Your task to perform on an android device: Search for asus zenbook on newegg, select the first entry, add it to the cart, then select checkout. Image 0: 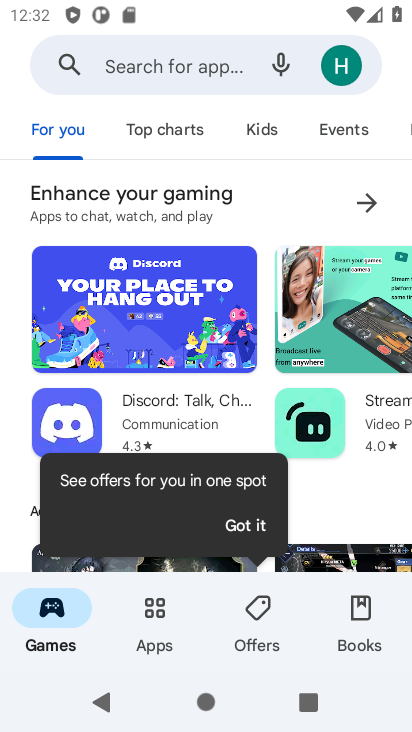
Step 0: press home button
Your task to perform on an android device: Search for asus zenbook on newegg, select the first entry, add it to the cart, then select checkout. Image 1: 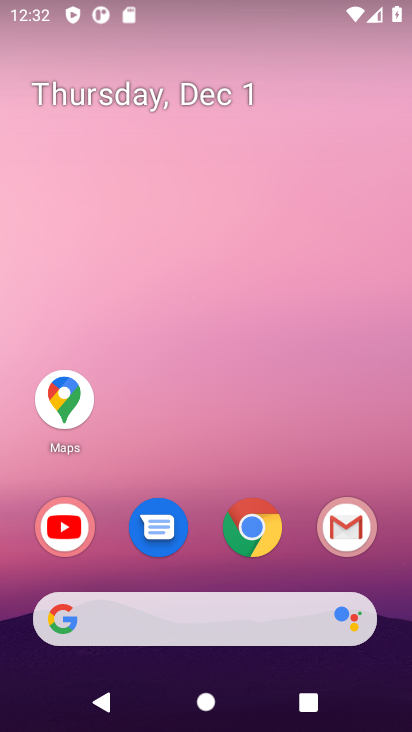
Step 1: click (252, 531)
Your task to perform on an android device: Search for asus zenbook on newegg, select the first entry, add it to the cart, then select checkout. Image 2: 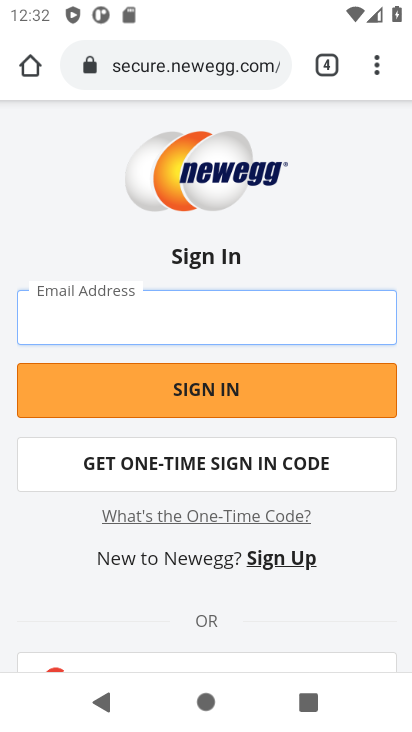
Step 2: press back button
Your task to perform on an android device: Search for asus zenbook on newegg, select the first entry, add it to the cart, then select checkout. Image 3: 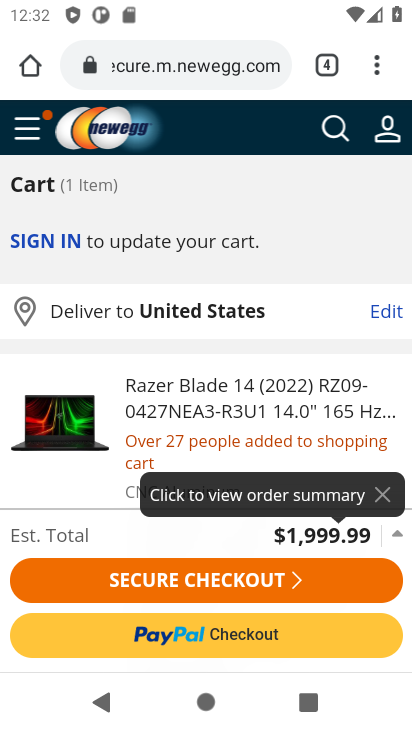
Step 3: click (328, 131)
Your task to perform on an android device: Search for asus zenbook on newegg, select the first entry, add it to the cart, then select checkout. Image 4: 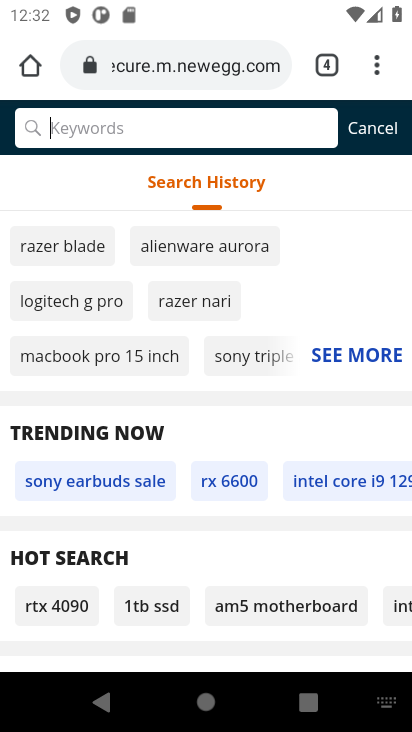
Step 4: type "asus zenbook"
Your task to perform on an android device: Search for asus zenbook on newegg, select the first entry, add it to the cart, then select checkout. Image 5: 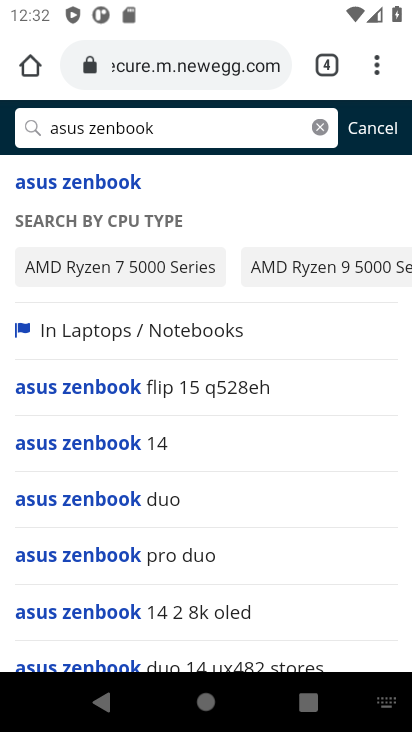
Step 5: click (75, 192)
Your task to perform on an android device: Search for asus zenbook on newegg, select the first entry, add it to the cart, then select checkout. Image 6: 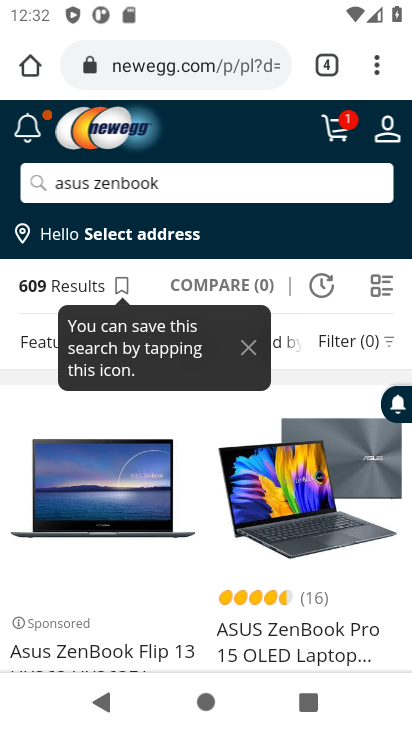
Step 6: drag from (176, 450) to (186, 242)
Your task to perform on an android device: Search for asus zenbook on newegg, select the first entry, add it to the cart, then select checkout. Image 7: 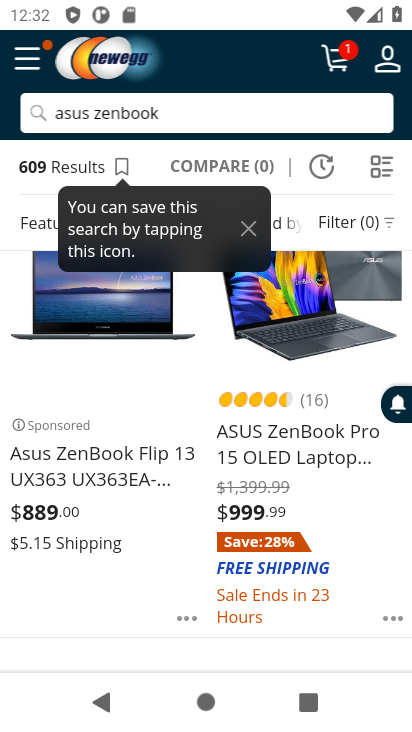
Step 7: click (80, 466)
Your task to perform on an android device: Search for asus zenbook on newegg, select the first entry, add it to the cart, then select checkout. Image 8: 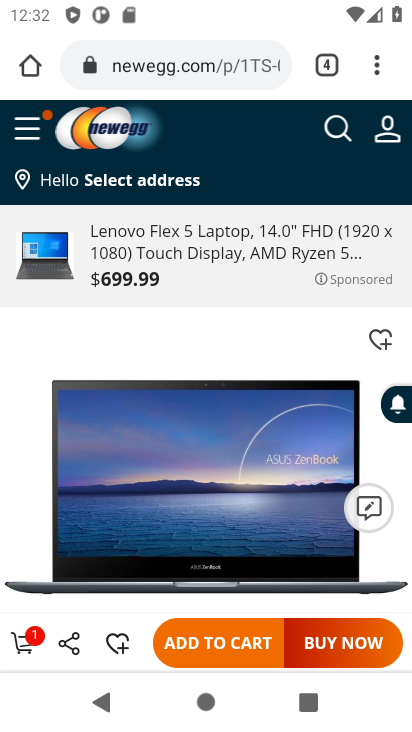
Step 8: click (219, 645)
Your task to perform on an android device: Search for asus zenbook on newegg, select the first entry, add it to the cart, then select checkout. Image 9: 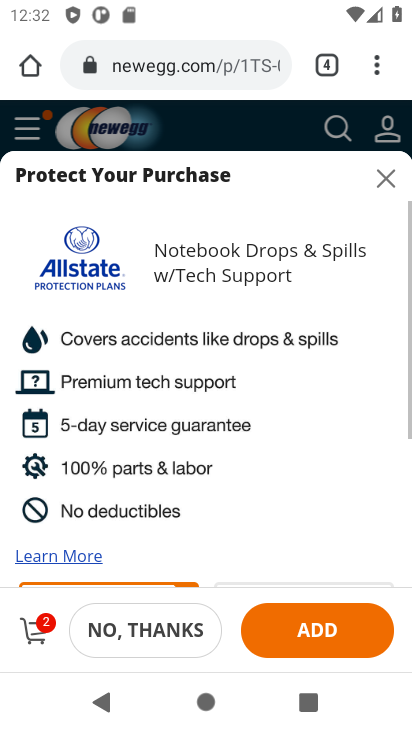
Step 9: click (37, 628)
Your task to perform on an android device: Search for asus zenbook on newegg, select the first entry, add it to the cart, then select checkout. Image 10: 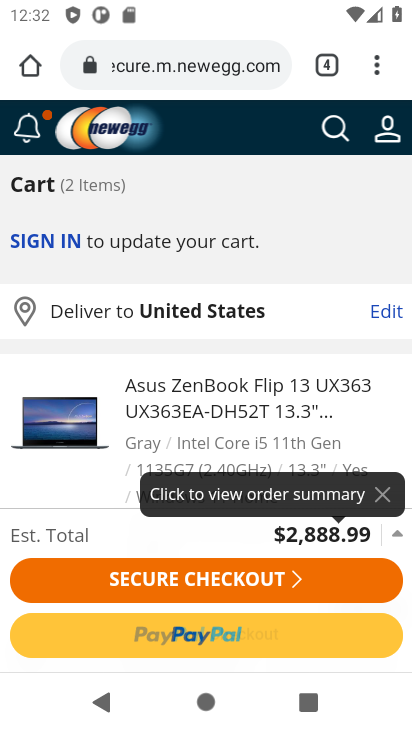
Step 10: click (194, 585)
Your task to perform on an android device: Search for asus zenbook on newegg, select the first entry, add it to the cart, then select checkout. Image 11: 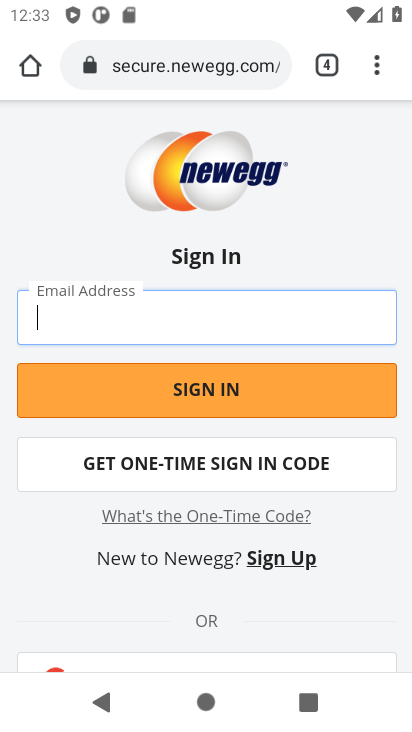
Step 11: task complete